Your task to perform on an android device: Go to Maps Image 0: 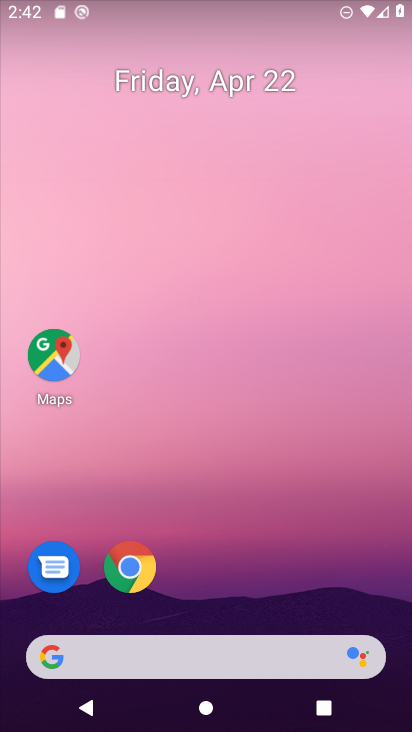
Step 0: click (54, 340)
Your task to perform on an android device: Go to Maps Image 1: 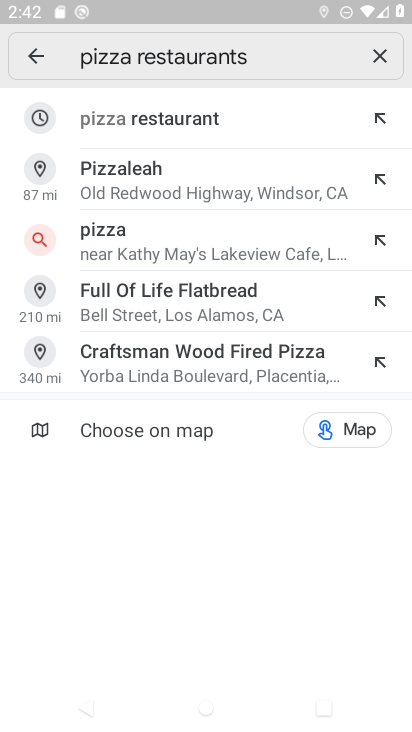
Step 1: task complete